Your task to perform on an android device: Open calendar and show me the third week of next month Image 0: 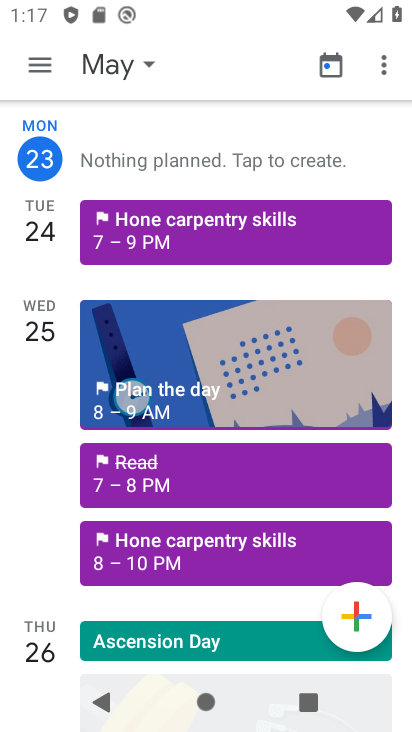
Step 0: click (120, 67)
Your task to perform on an android device: Open calendar and show me the third week of next month Image 1: 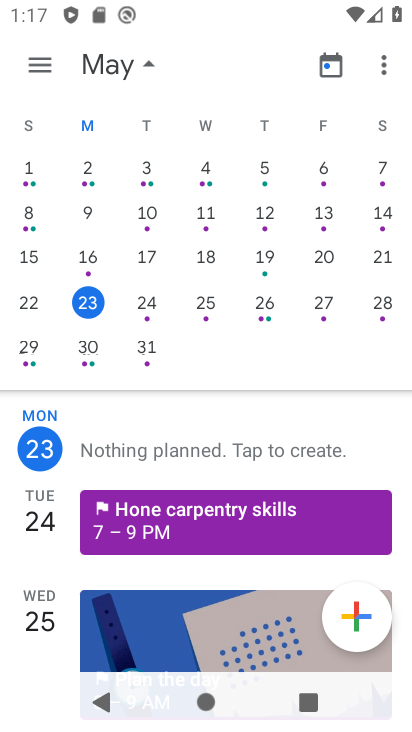
Step 1: drag from (359, 255) to (27, 240)
Your task to perform on an android device: Open calendar and show me the third week of next month Image 2: 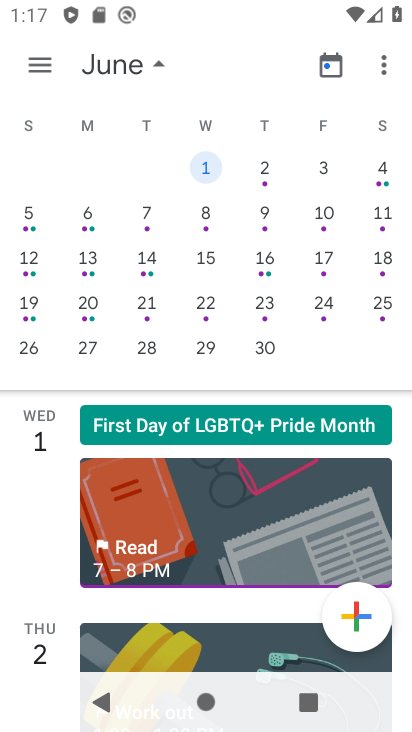
Step 2: click (88, 258)
Your task to perform on an android device: Open calendar and show me the third week of next month Image 3: 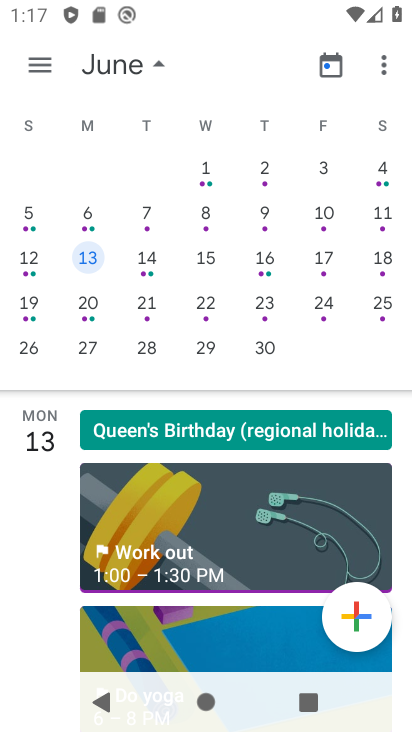
Step 3: task complete